Your task to perform on an android device: turn off airplane mode Image 0: 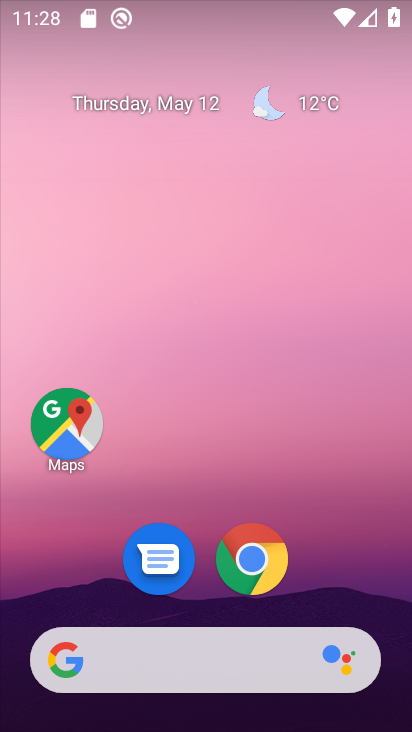
Step 0: drag from (81, 609) to (237, 176)
Your task to perform on an android device: turn off airplane mode Image 1: 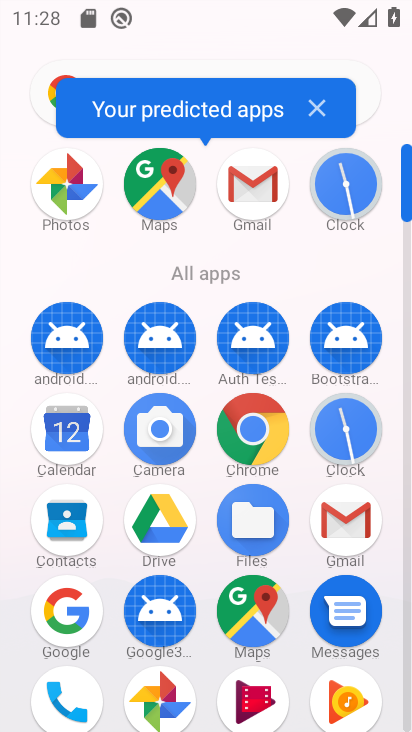
Step 1: drag from (139, 621) to (259, 267)
Your task to perform on an android device: turn off airplane mode Image 2: 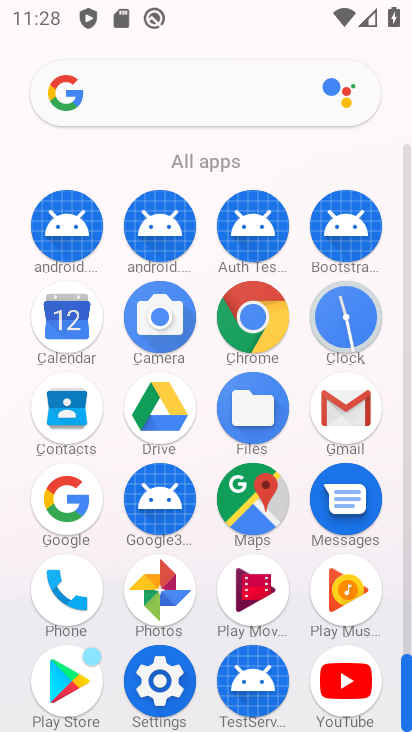
Step 2: click (166, 693)
Your task to perform on an android device: turn off airplane mode Image 3: 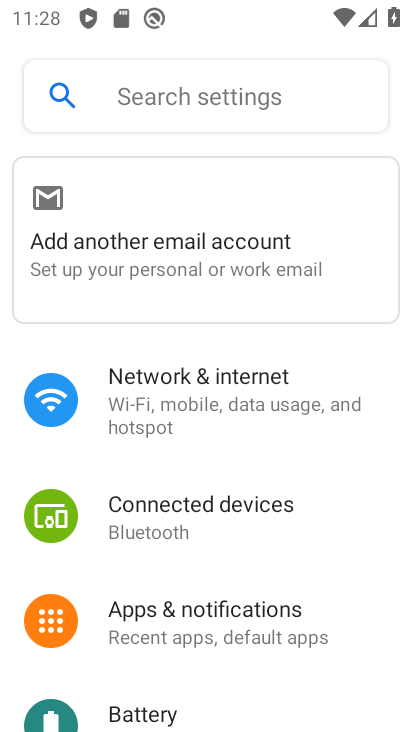
Step 3: click (222, 404)
Your task to perform on an android device: turn off airplane mode Image 4: 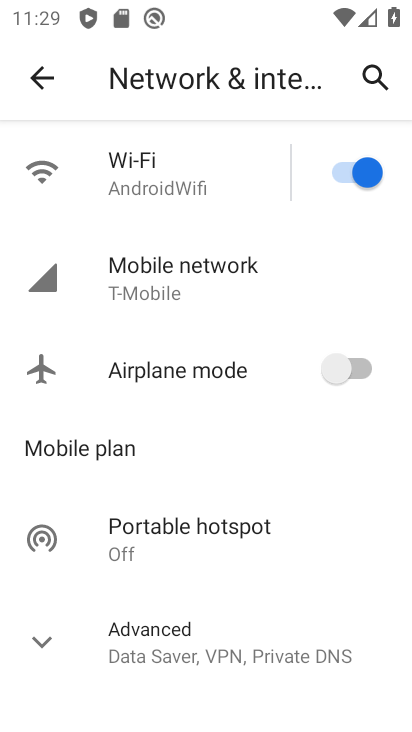
Step 4: task complete